Your task to perform on an android device: Open Google Maps and go to "Timeline" Image 0: 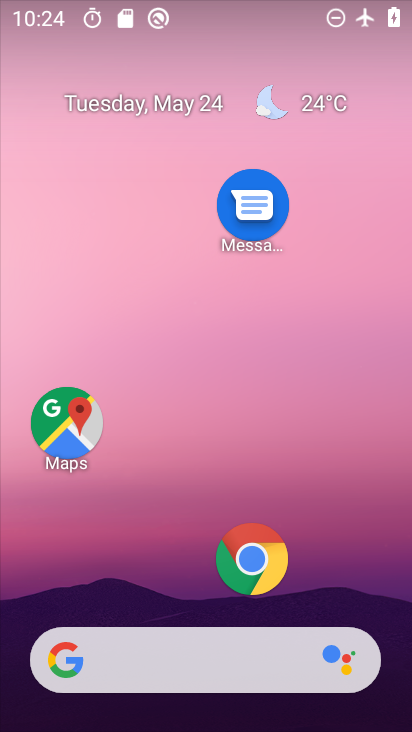
Step 0: click (49, 445)
Your task to perform on an android device: Open Google Maps and go to "Timeline" Image 1: 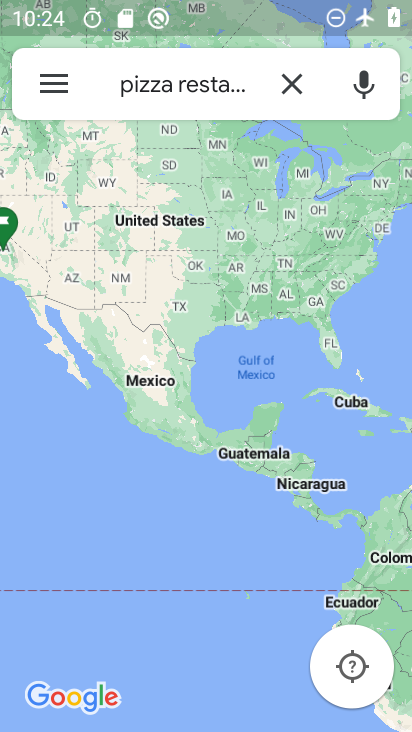
Step 1: click (48, 70)
Your task to perform on an android device: Open Google Maps and go to "Timeline" Image 2: 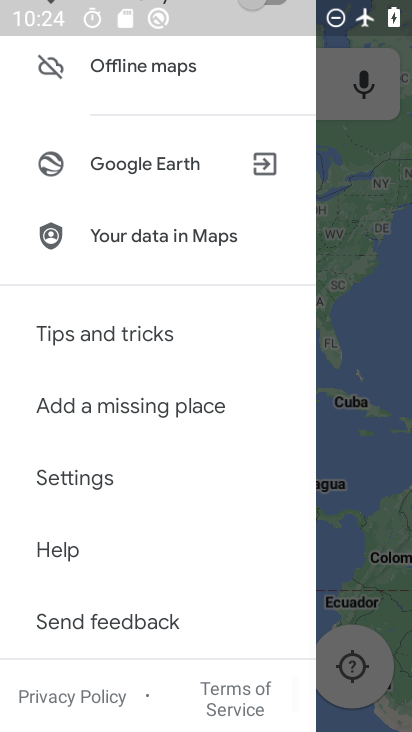
Step 2: drag from (115, 145) to (158, 431)
Your task to perform on an android device: Open Google Maps and go to "Timeline" Image 3: 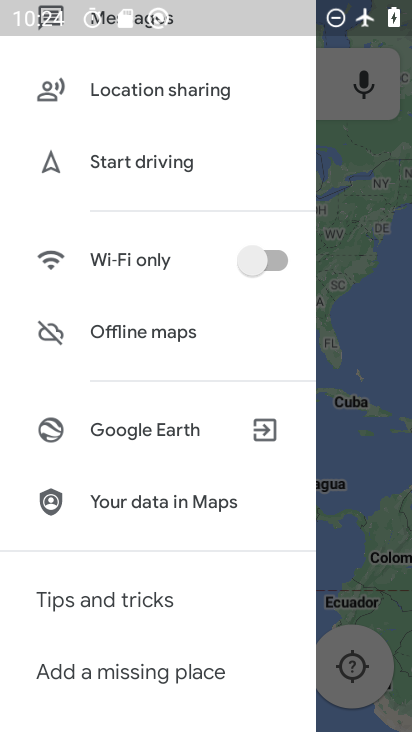
Step 3: drag from (142, 147) to (183, 447)
Your task to perform on an android device: Open Google Maps and go to "Timeline" Image 4: 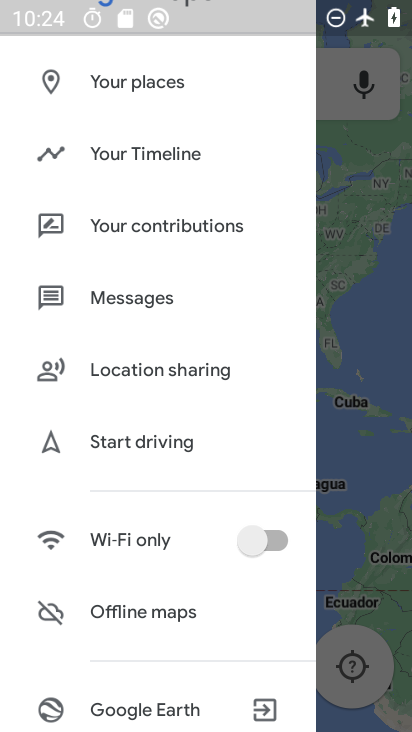
Step 4: click (162, 153)
Your task to perform on an android device: Open Google Maps and go to "Timeline" Image 5: 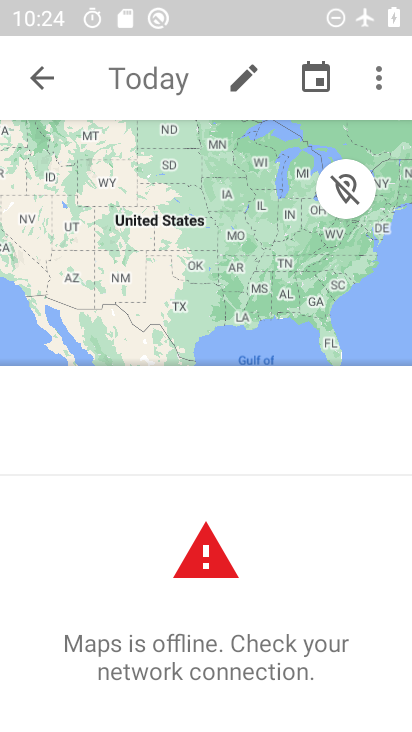
Step 5: task complete